Your task to perform on an android device: turn on data saver in the chrome app Image 0: 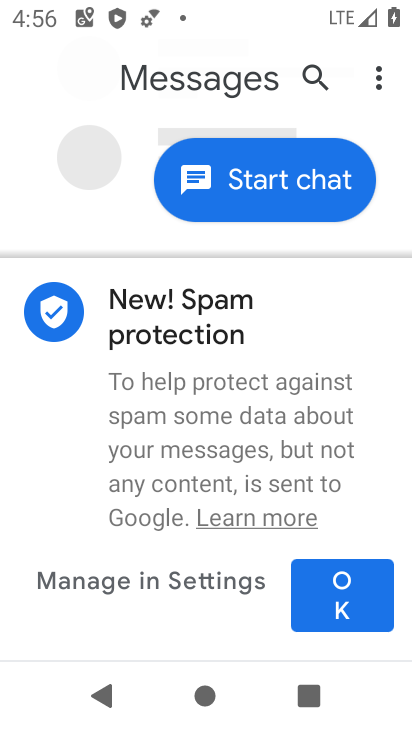
Step 0: press home button
Your task to perform on an android device: turn on data saver in the chrome app Image 1: 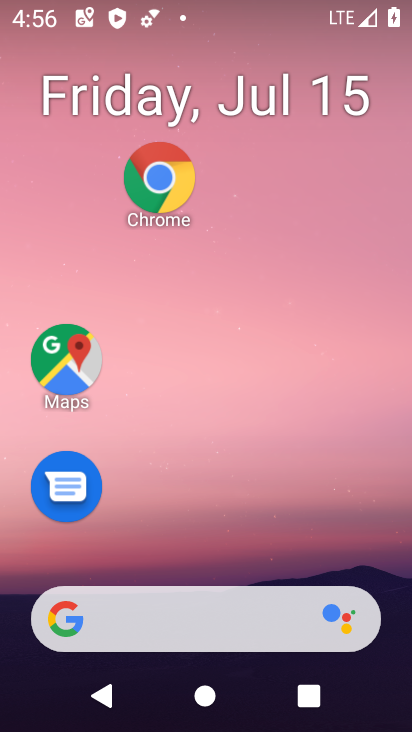
Step 1: click (157, 177)
Your task to perform on an android device: turn on data saver in the chrome app Image 2: 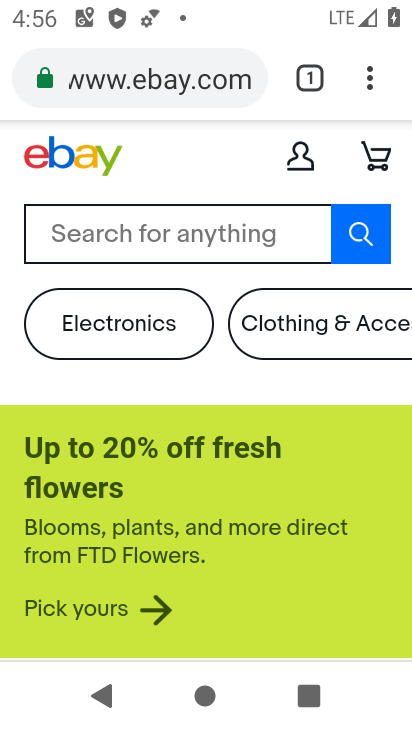
Step 2: click (370, 76)
Your task to perform on an android device: turn on data saver in the chrome app Image 3: 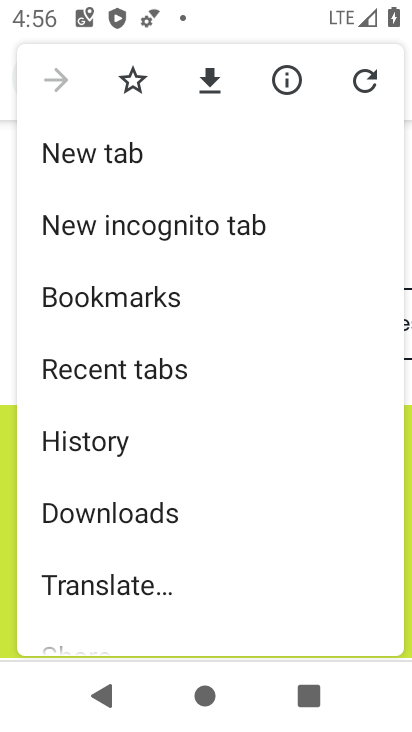
Step 3: drag from (100, 614) to (157, 239)
Your task to perform on an android device: turn on data saver in the chrome app Image 4: 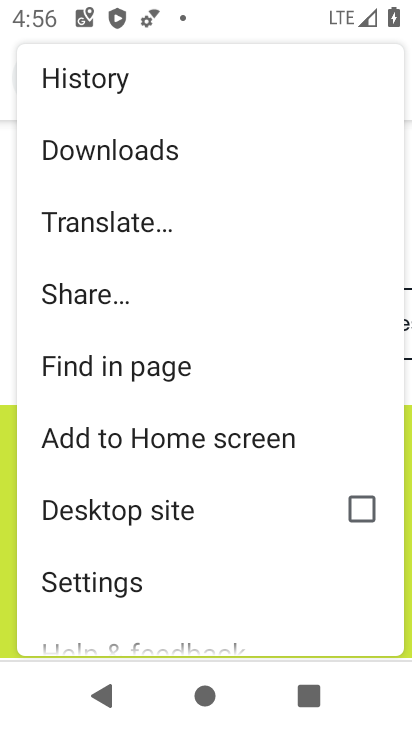
Step 4: click (65, 584)
Your task to perform on an android device: turn on data saver in the chrome app Image 5: 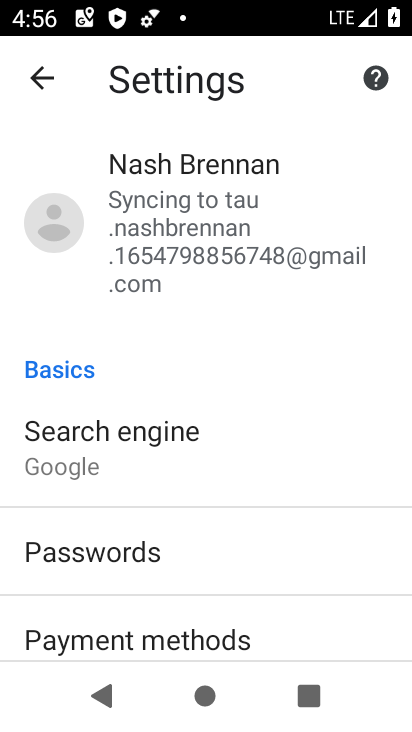
Step 5: drag from (130, 446) to (125, 313)
Your task to perform on an android device: turn on data saver in the chrome app Image 6: 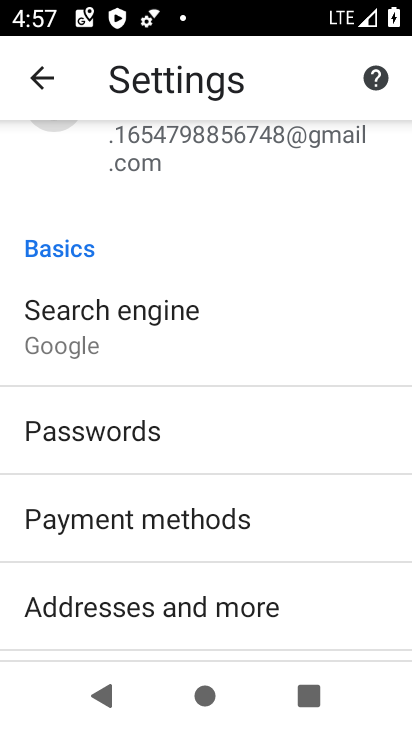
Step 6: drag from (158, 559) to (151, 340)
Your task to perform on an android device: turn on data saver in the chrome app Image 7: 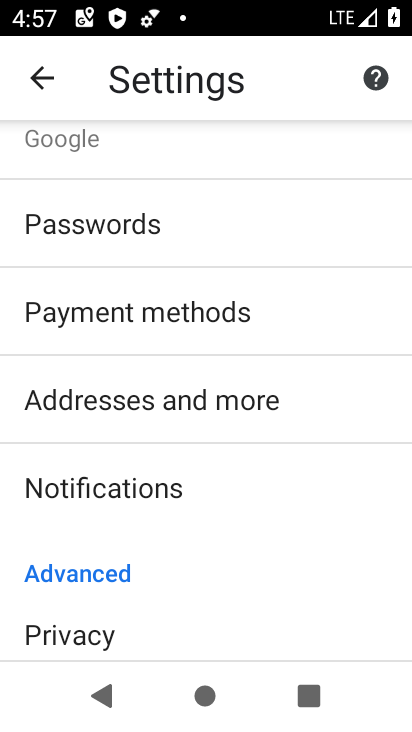
Step 7: drag from (228, 441) to (235, 240)
Your task to perform on an android device: turn on data saver in the chrome app Image 8: 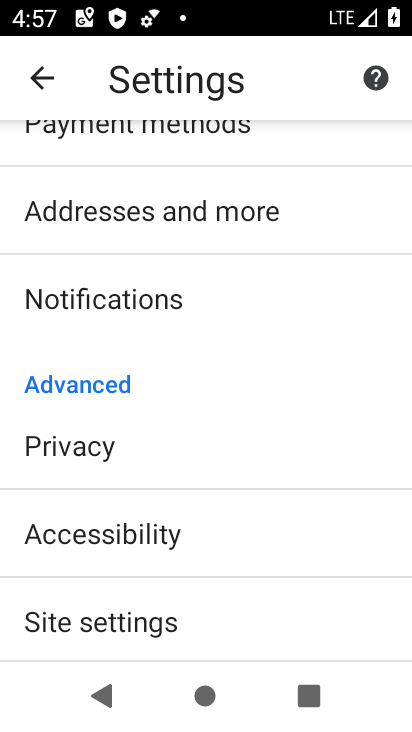
Step 8: drag from (145, 613) to (253, 287)
Your task to perform on an android device: turn on data saver in the chrome app Image 9: 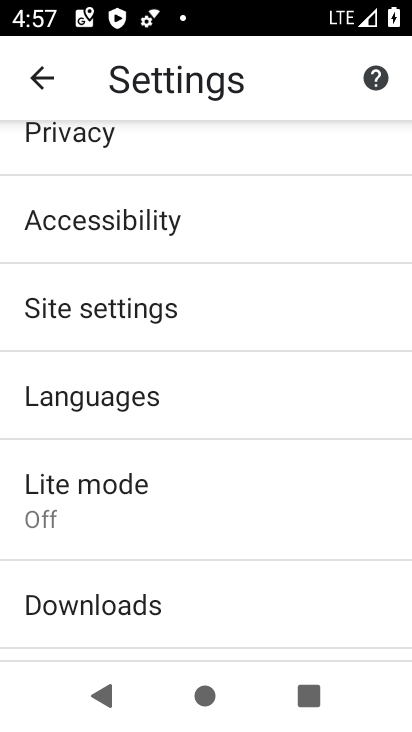
Step 9: click (92, 499)
Your task to perform on an android device: turn on data saver in the chrome app Image 10: 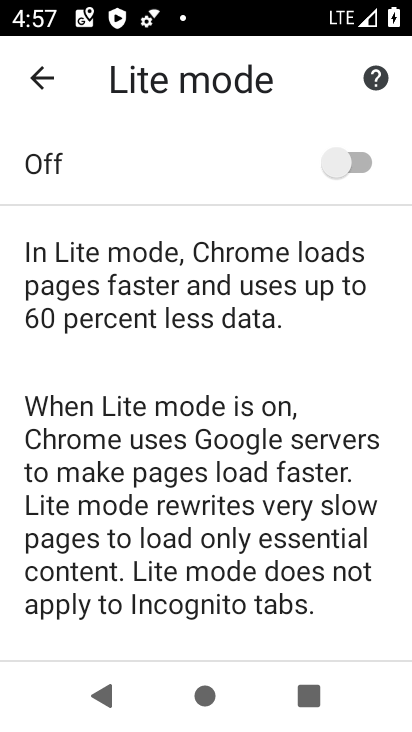
Step 10: click (373, 166)
Your task to perform on an android device: turn on data saver in the chrome app Image 11: 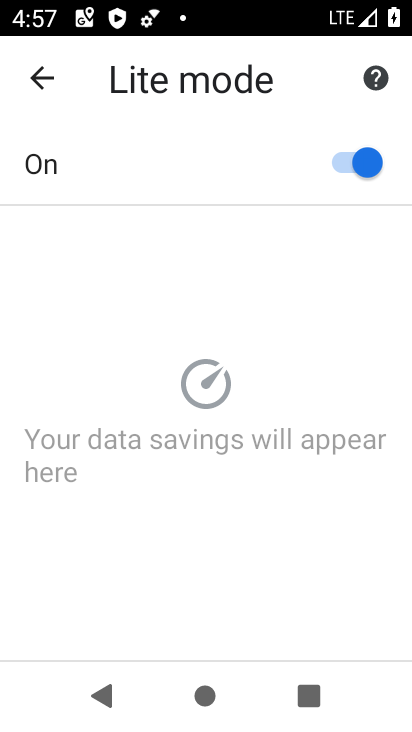
Step 11: task complete